Your task to perform on an android device: change alarm snooze length Image 0: 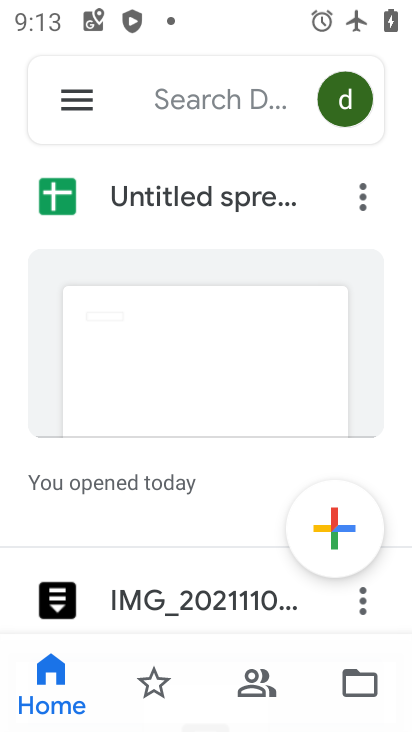
Step 0: press home button
Your task to perform on an android device: change alarm snooze length Image 1: 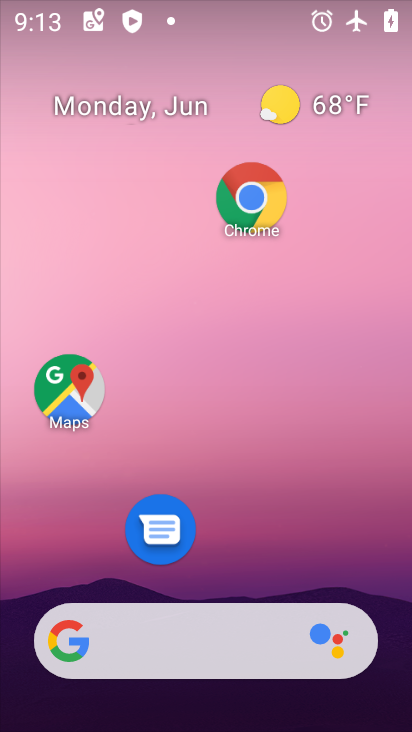
Step 1: drag from (252, 558) to (278, 132)
Your task to perform on an android device: change alarm snooze length Image 2: 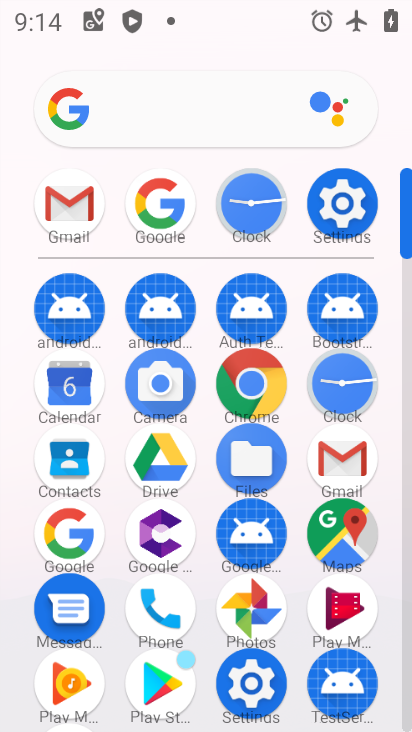
Step 2: click (342, 382)
Your task to perform on an android device: change alarm snooze length Image 3: 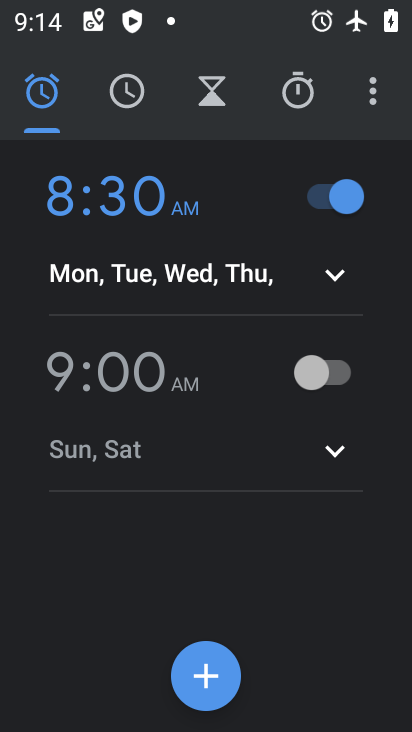
Step 3: click (359, 88)
Your task to perform on an android device: change alarm snooze length Image 4: 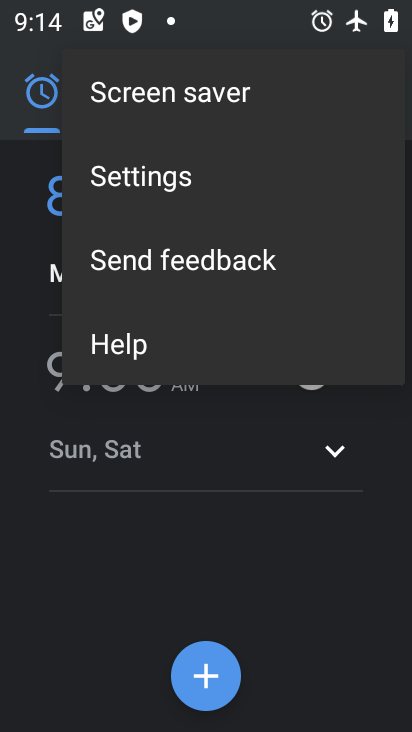
Step 4: click (199, 181)
Your task to perform on an android device: change alarm snooze length Image 5: 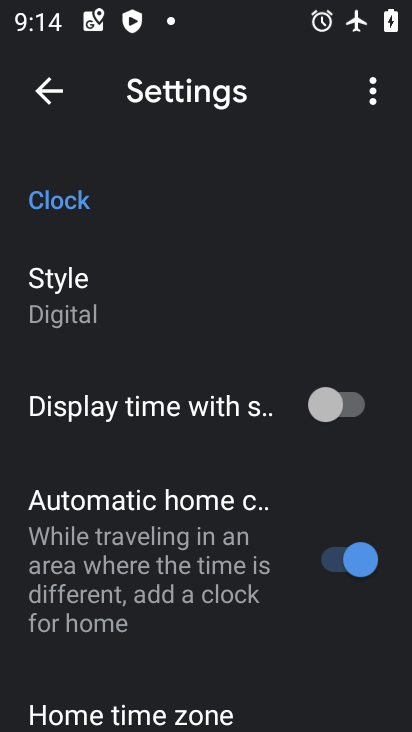
Step 5: drag from (200, 566) to (188, 296)
Your task to perform on an android device: change alarm snooze length Image 6: 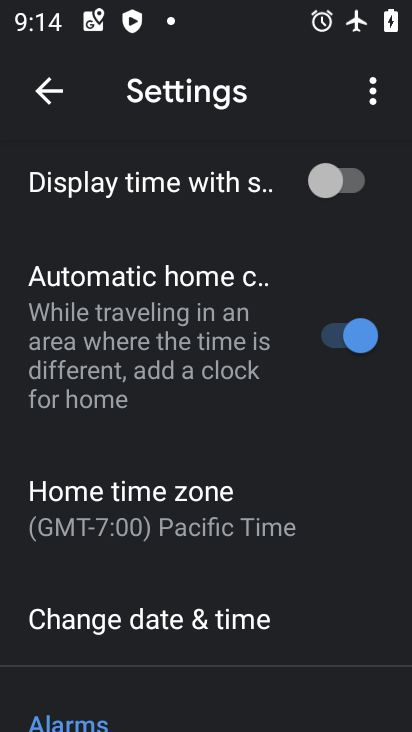
Step 6: drag from (244, 555) to (254, 352)
Your task to perform on an android device: change alarm snooze length Image 7: 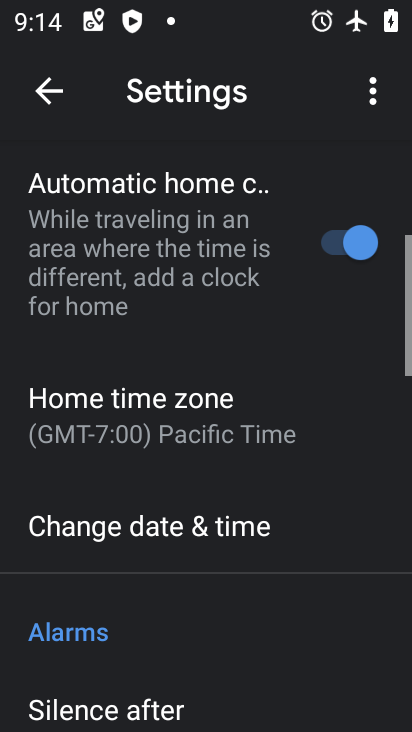
Step 7: drag from (252, 637) to (266, 371)
Your task to perform on an android device: change alarm snooze length Image 8: 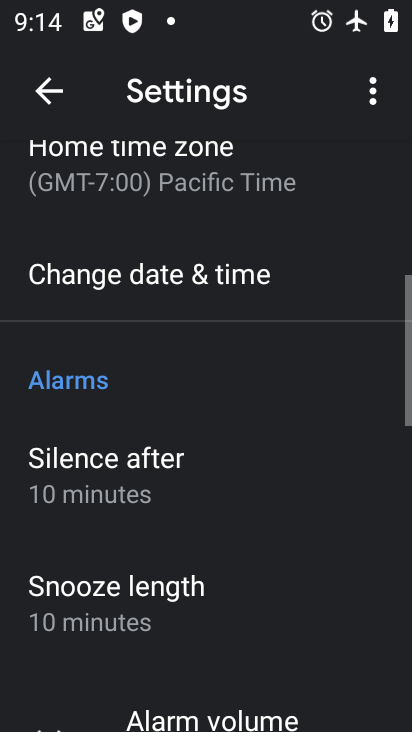
Step 8: click (211, 582)
Your task to perform on an android device: change alarm snooze length Image 9: 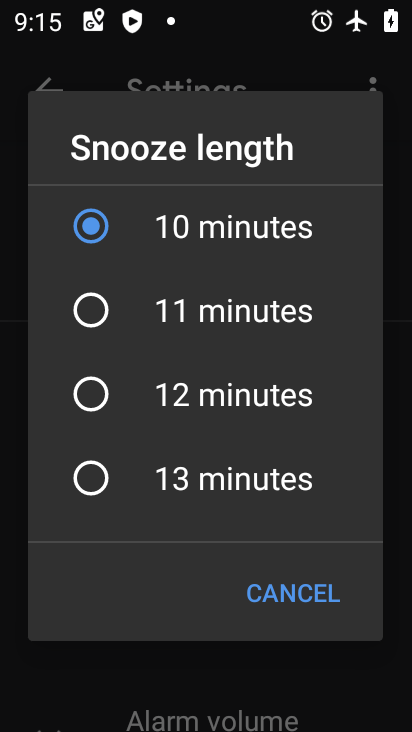
Step 9: click (193, 401)
Your task to perform on an android device: change alarm snooze length Image 10: 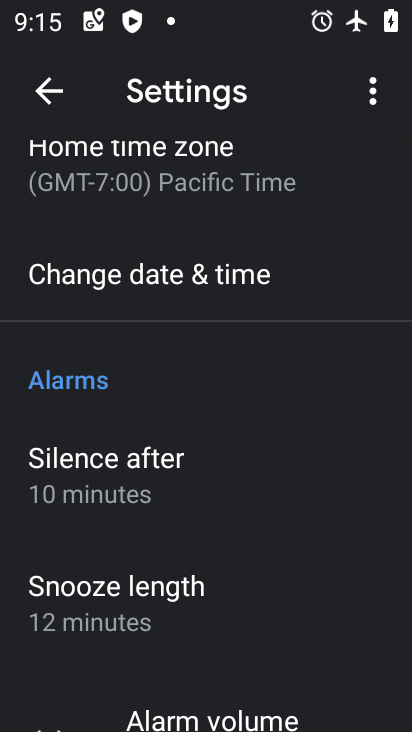
Step 10: task complete